Your task to perform on an android device: set default search engine in the chrome app Image 0: 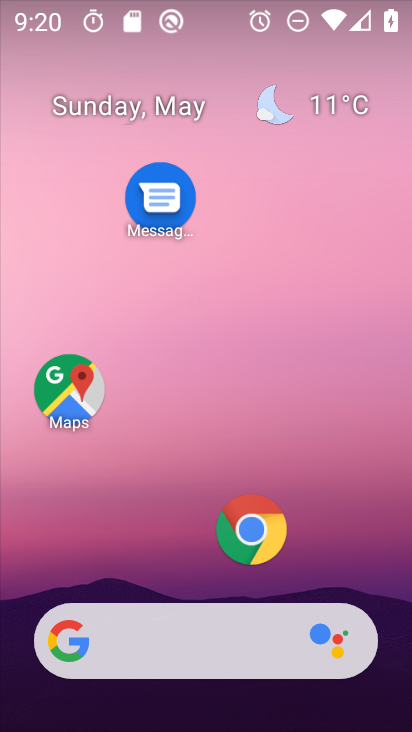
Step 0: press home button
Your task to perform on an android device: set default search engine in the chrome app Image 1: 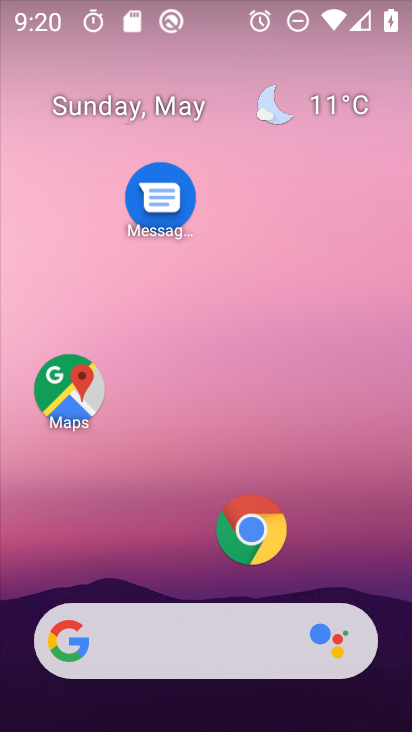
Step 1: click (252, 518)
Your task to perform on an android device: set default search engine in the chrome app Image 2: 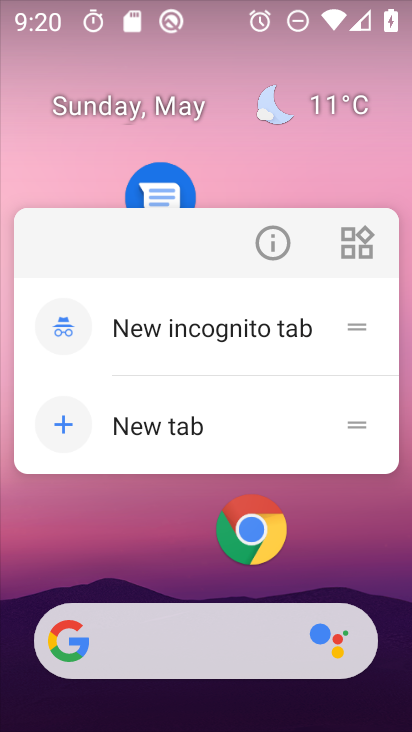
Step 2: click (248, 532)
Your task to perform on an android device: set default search engine in the chrome app Image 3: 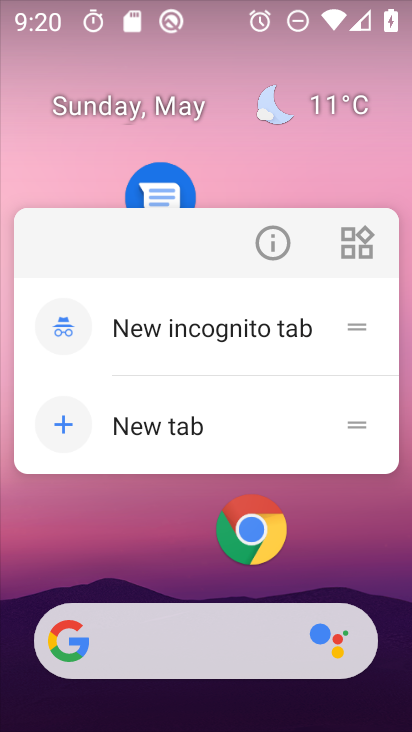
Step 3: click (250, 530)
Your task to perform on an android device: set default search engine in the chrome app Image 4: 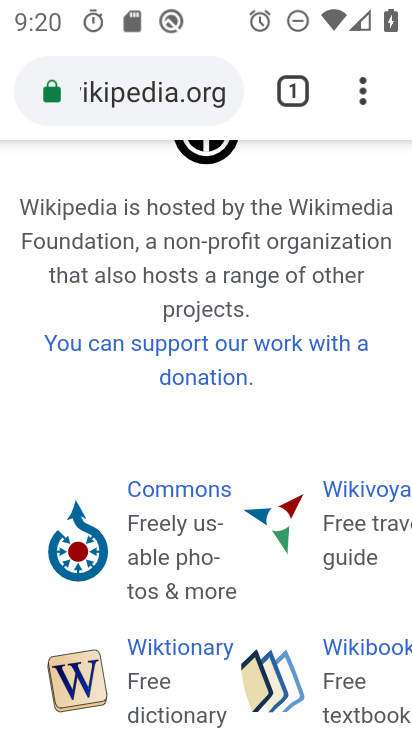
Step 4: click (362, 89)
Your task to perform on an android device: set default search engine in the chrome app Image 5: 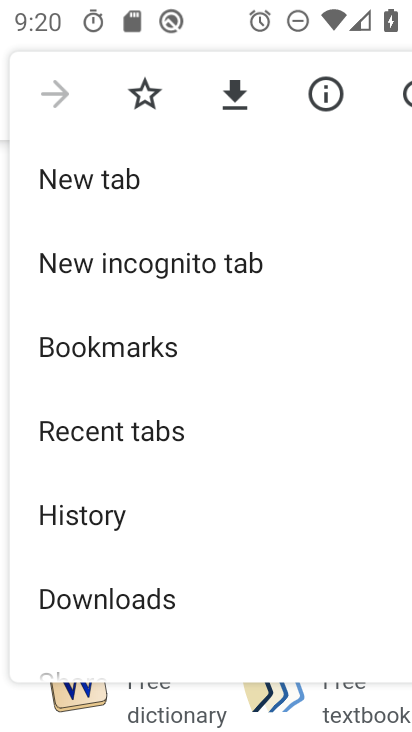
Step 5: drag from (219, 605) to (235, 166)
Your task to perform on an android device: set default search engine in the chrome app Image 6: 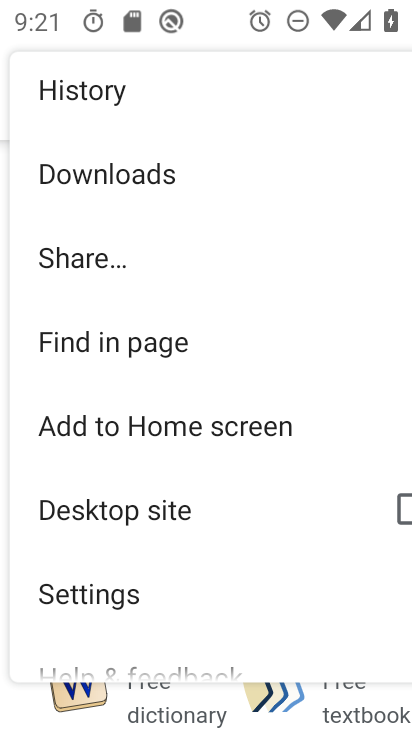
Step 6: click (150, 589)
Your task to perform on an android device: set default search engine in the chrome app Image 7: 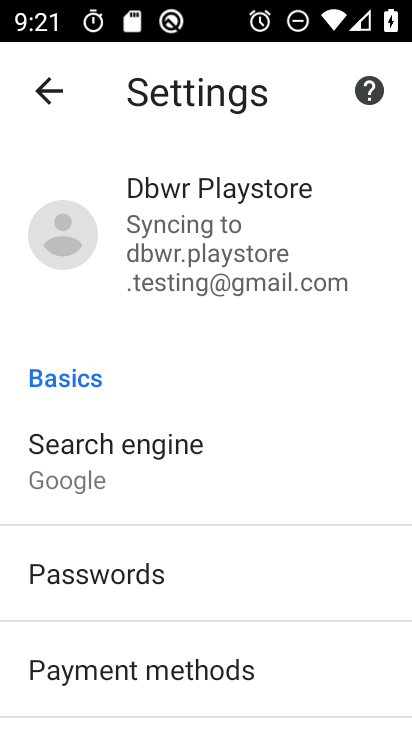
Step 7: drag from (235, 631) to (248, 442)
Your task to perform on an android device: set default search engine in the chrome app Image 8: 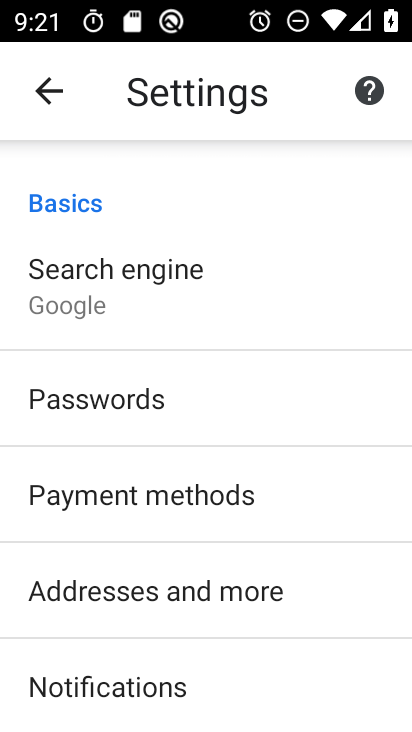
Step 8: click (137, 298)
Your task to perform on an android device: set default search engine in the chrome app Image 9: 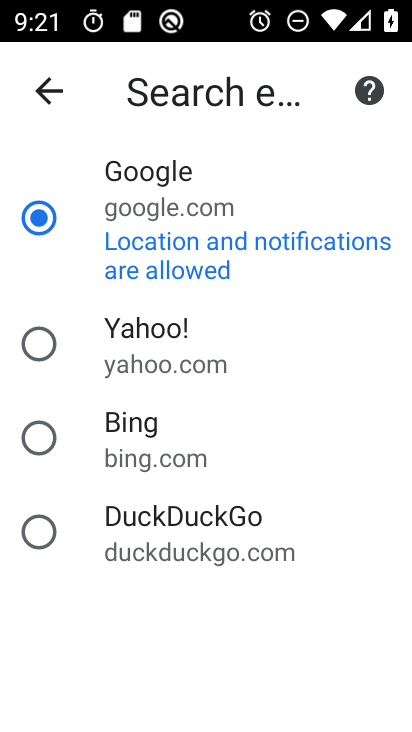
Step 9: click (39, 442)
Your task to perform on an android device: set default search engine in the chrome app Image 10: 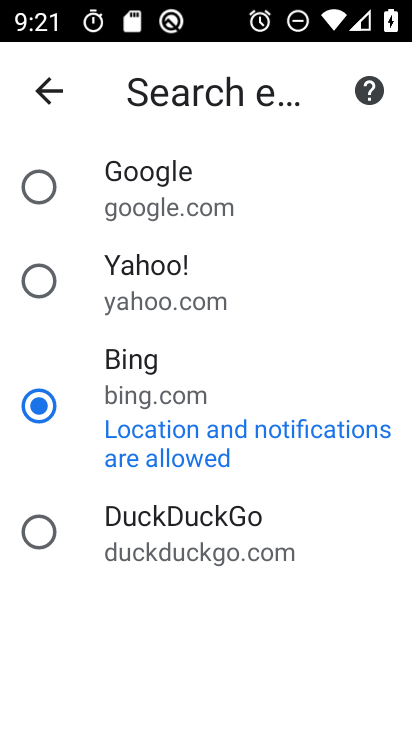
Step 10: task complete